Your task to perform on an android device: Go to display settings Image 0: 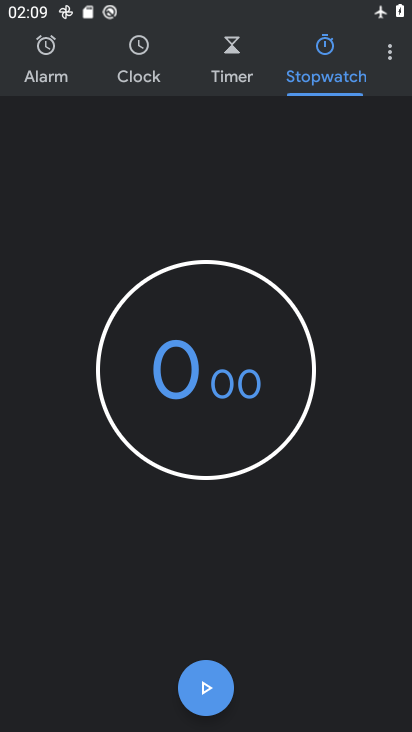
Step 0: press home button
Your task to perform on an android device: Go to display settings Image 1: 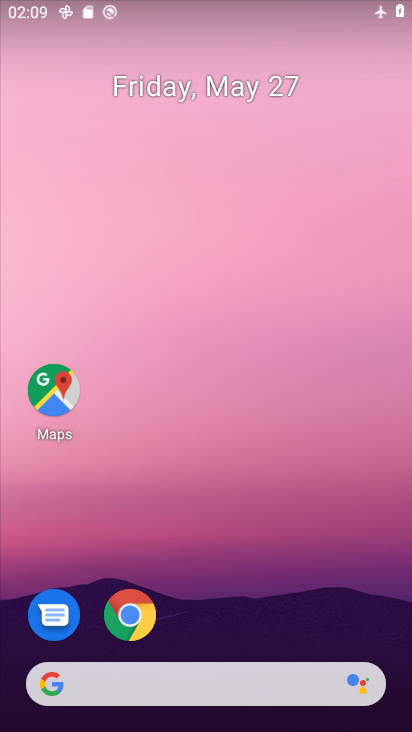
Step 1: drag from (358, 631) to (355, 113)
Your task to perform on an android device: Go to display settings Image 2: 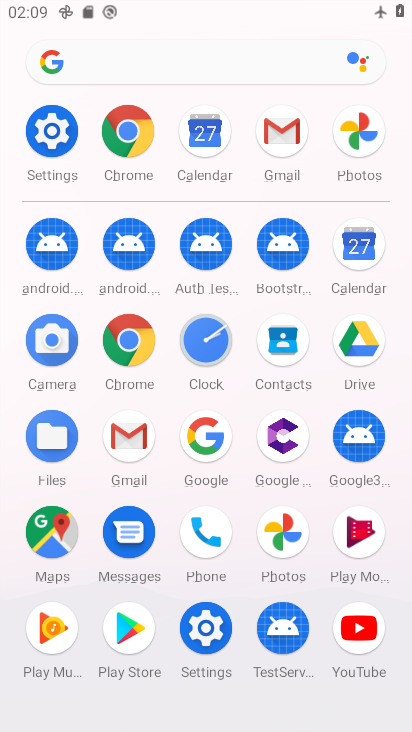
Step 2: click (217, 633)
Your task to perform on an android device: Go to display settings Image 3: 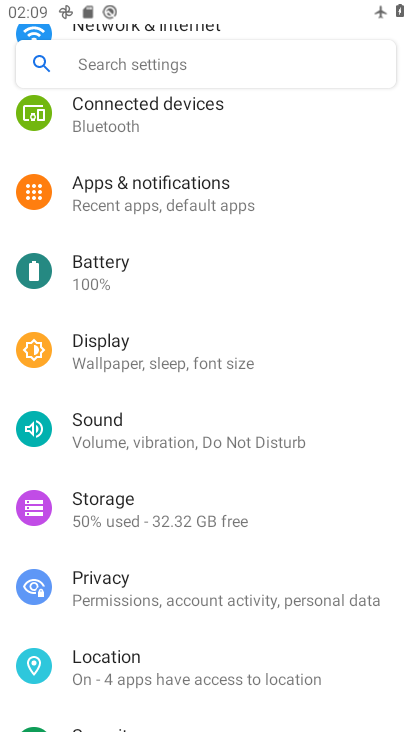
Step 3: drag from (294, 647) to (301, 522)
Your task to perform on an android device: Go to display settings Image 4: 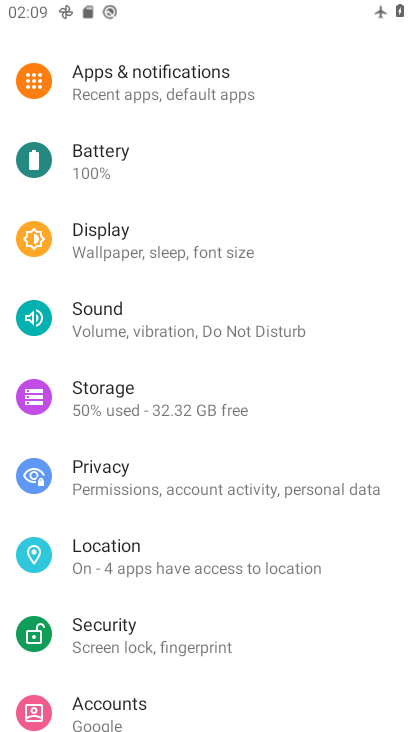
Step 4: drag from (309, 648) to (316, 520)
Your task to perform on an android device: Go to display settings Image 5: 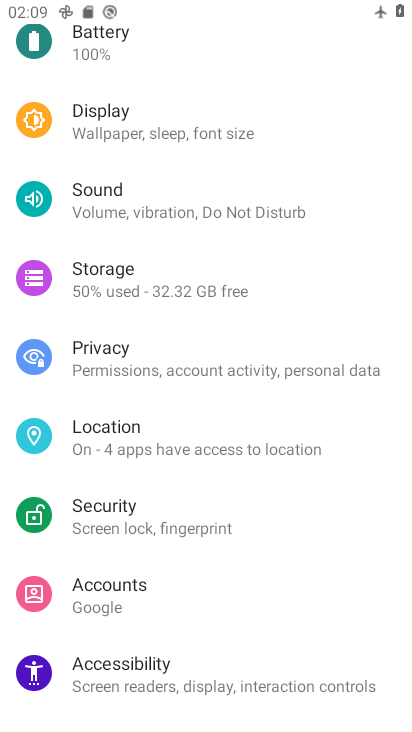
Step 5: drag from (309, 616) to (321, 505)
Your task to perform on an android device: Go to display settings Image 6: 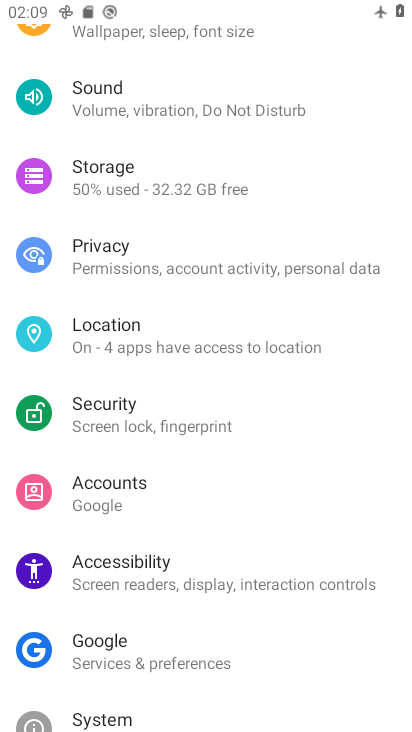
Step 6: drag from (319, 656) to (326, 548)
Your task to perform on an android device: Go to display settings Image 7: 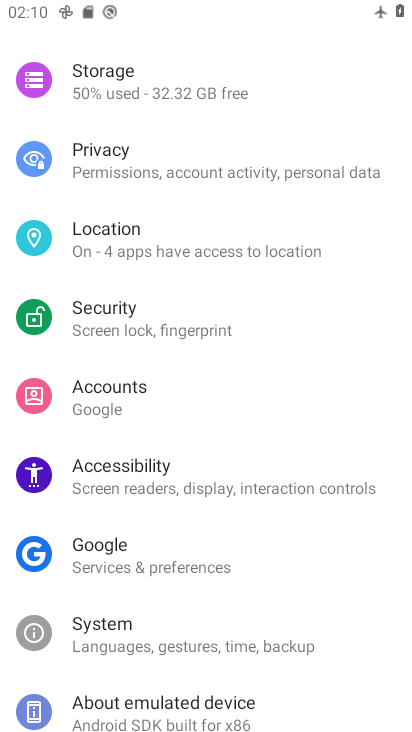
Step 7: drag from (330, 629) to (335, 512)
Your task to perform on an android device: Go to display settings Image 8: 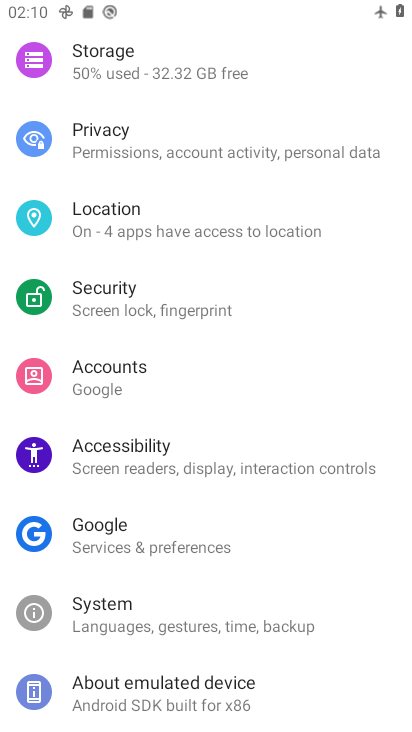
Step 8: drag from (338, 381) to (338, 463)
Your task to perform on an android device: Go to display settings Image 9: 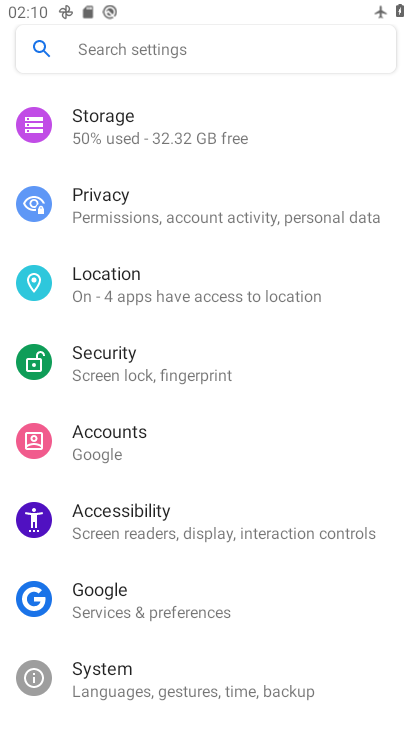
Step 9: drag from (338, 411) to (339, 472)
Your task to perform on an android device: Go to display settings Image 10: 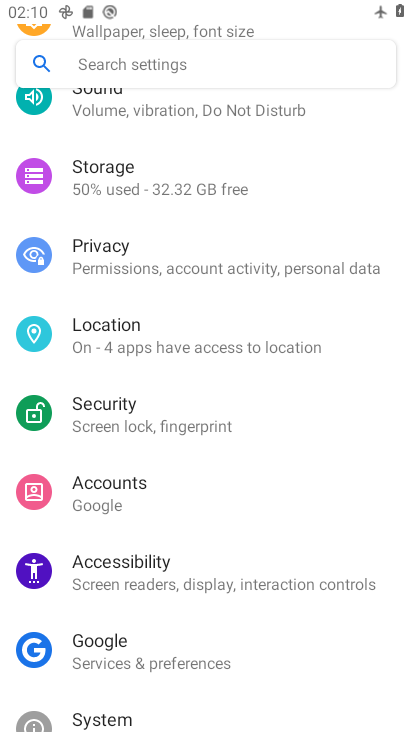
Step 10: drag from (339, 407) to (341, 470)
Your task to perform on an android device: Go to display settings Image 11: 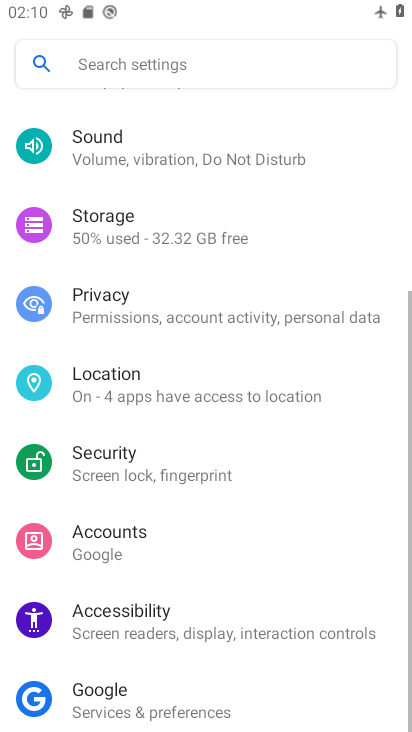
Step 11: drag from (339, 338) to (338, 496)
Your task to perform on an android device: Go to display settings Image 12: 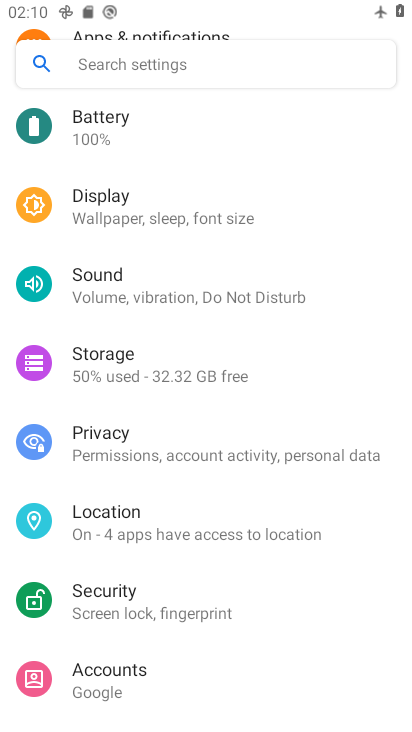
Step 12: drag from (329, 398) to (328, 495)
Your task to perform on an android device: Go to display settings Image 13: 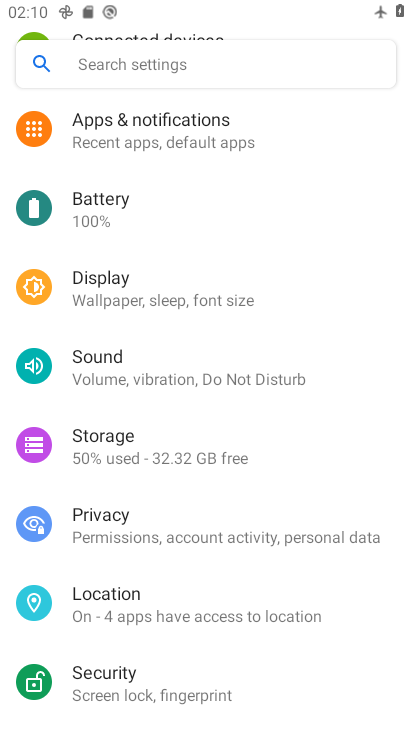
Step 13: drag from (340, 362) to (334, 478)
Your task to perform on an android device: Go to display settings Image 14: 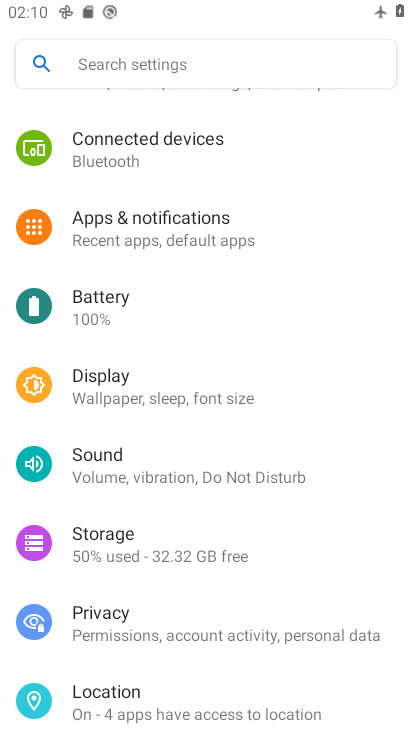
Step 14: drag from (329, 360) to (328, 517)
Your task to perform on an android device: Go to display settings Image 15: 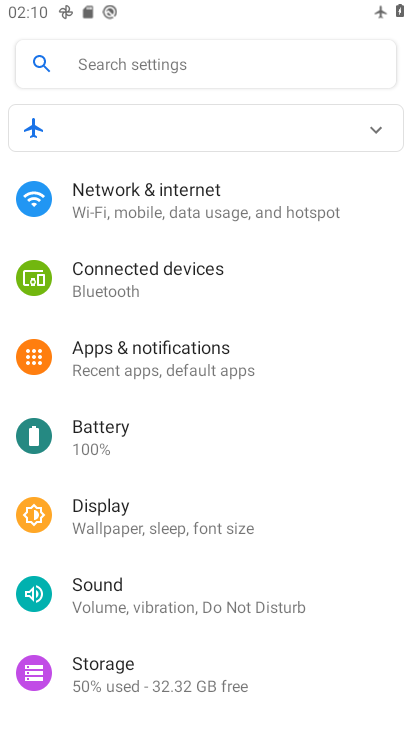
Step 15: click (212, 524)
Your task to perform on an android device: Go to display settings Image 16: 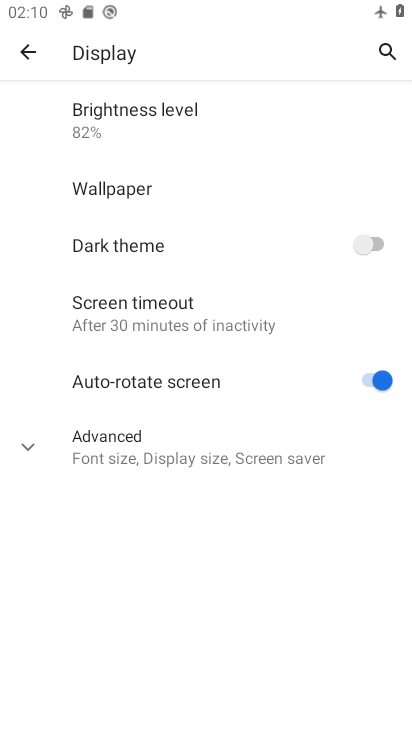
Step 16: task complete